Your task to perform on an android device: make emails show in primary in the gmail app Image 0: 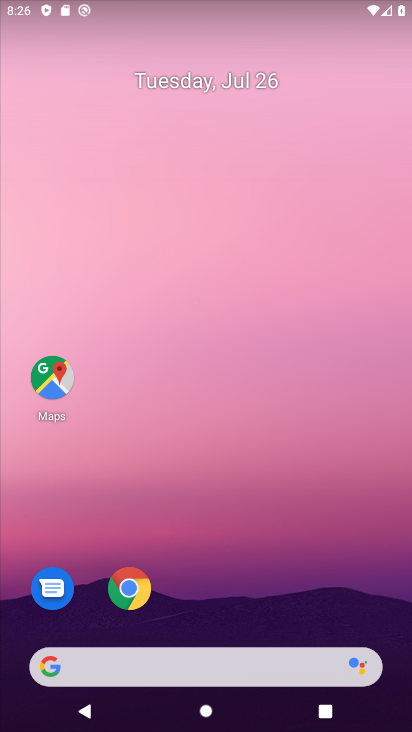
Step 0: press back button
Your task to perform on an android device: make emails show in primary in the gmail app Image 1: 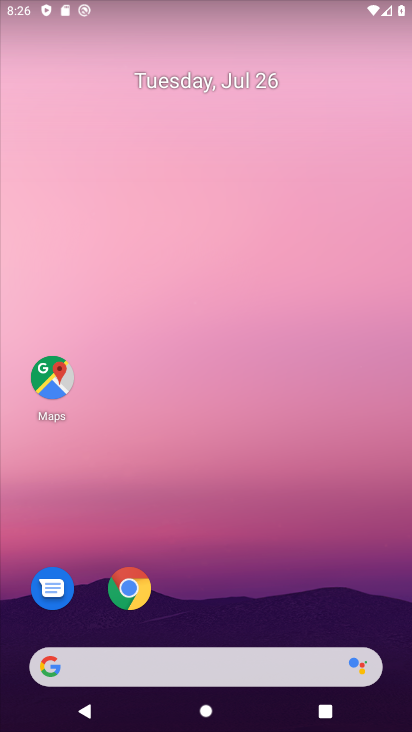
Step 1: drag from (303, 631) to (238, 75)
Your task to perform on an android device: make emails show in primary in the gmail app Image 2: 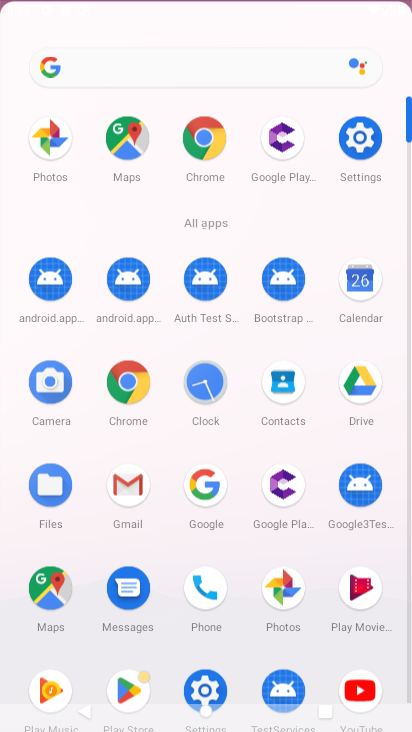
Step 2: drag from (245, 490) to (206, 61)
Your task to perform on an android device: make emails show in primary in the gmail app Image 3: 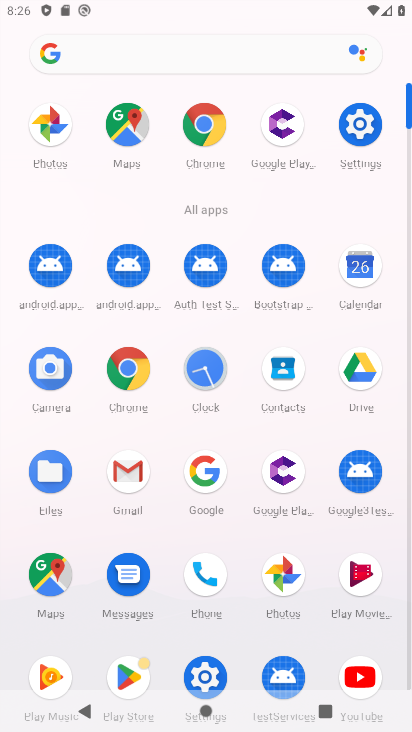
Step 3: click (118, 469)
Your task to perform on an android device: make emails show in primary in the gmail app Image 4: 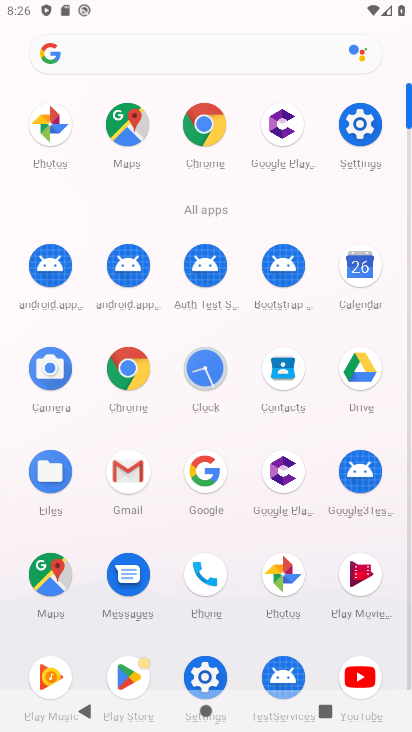
Step 4: click (117, 471)
Your task to perform on an android device: make emails show in primary in the gmail app Image 5: 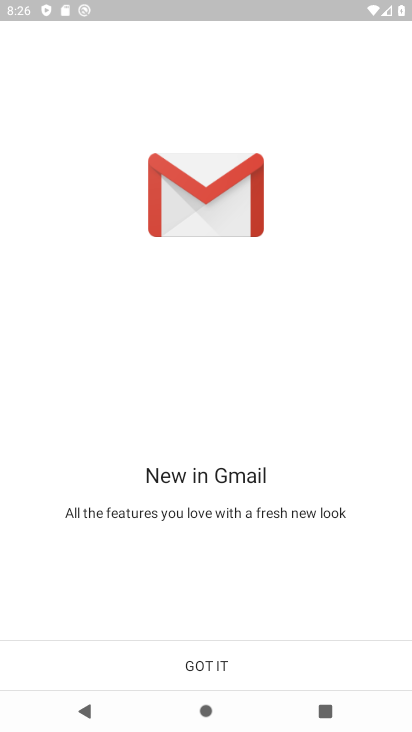
Step 5: click (210, 659)
Your task to perform on an android device: make emails show in primary in the gmail app Image 6: 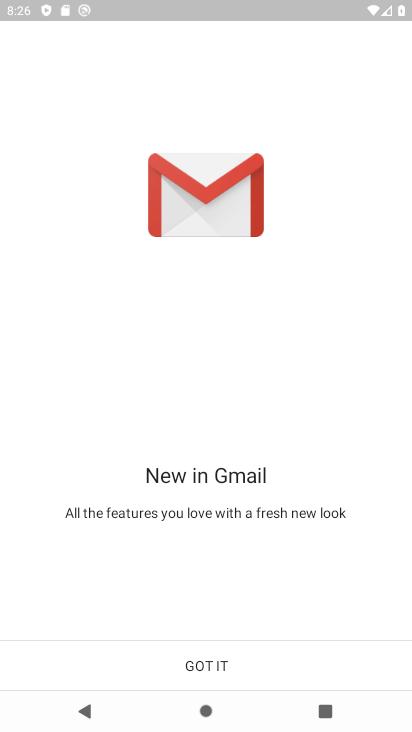
Step 6: click (210, 658)
Your task to perform on an android device: make emails show in primary in the gmail app Image 7: 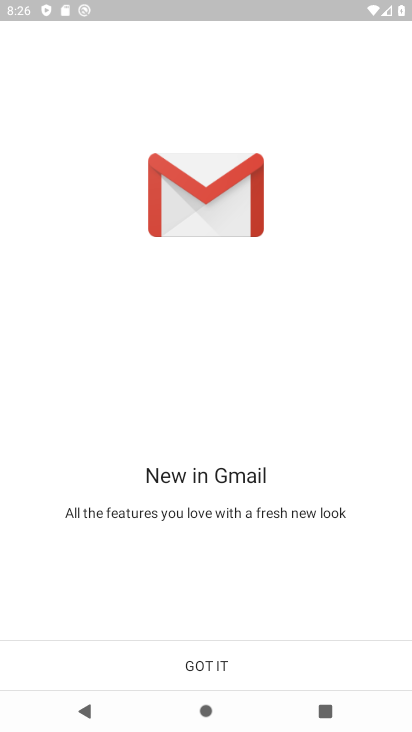
Step 7: click (214, 660)
Your task to perform on an android device: make emails show in primary in the gmail app Image 8: 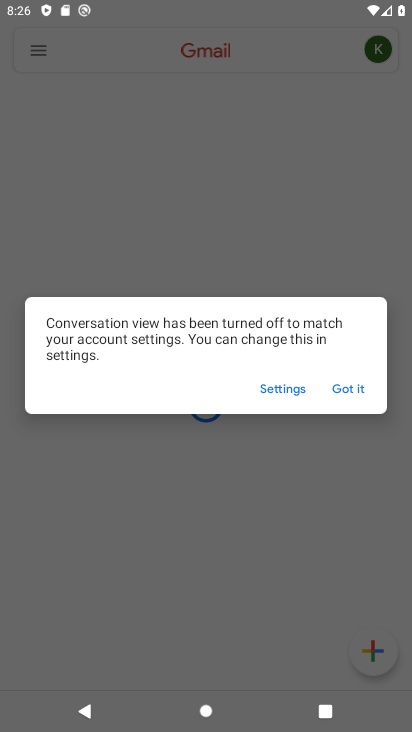
Step 8: click (345, 387)
Your task to perform on an android device: make emails show in primary in the gmail app Image 9: 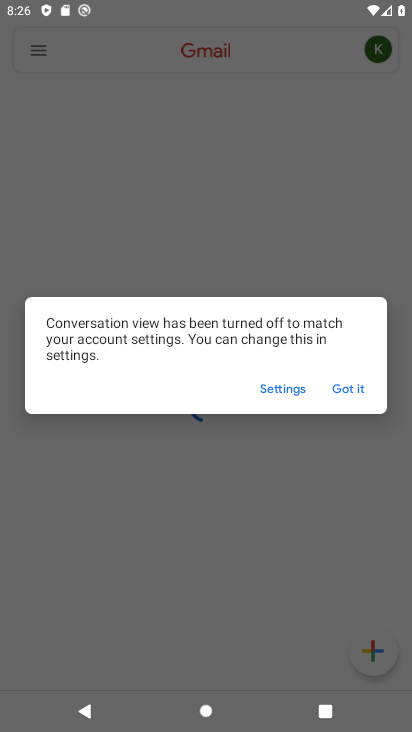
Step 9: click (345, 387)
Your task to perform on an android device: make emails show in primary in the gmail app Image 10: 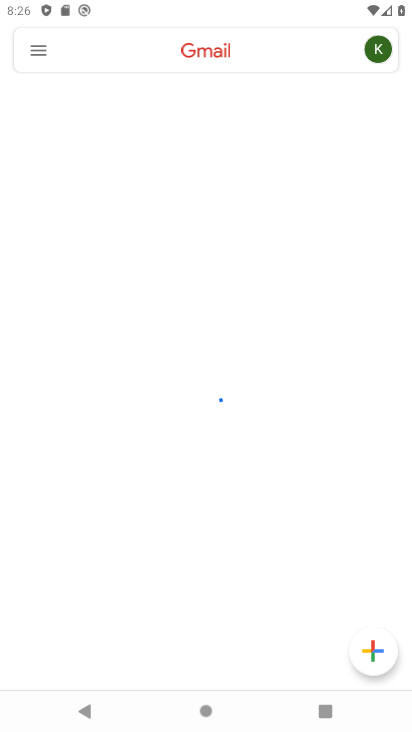
Step 10: click (345, 387)
Your task to perform on an android device: make emails show in primary in the gmail app Image 11: 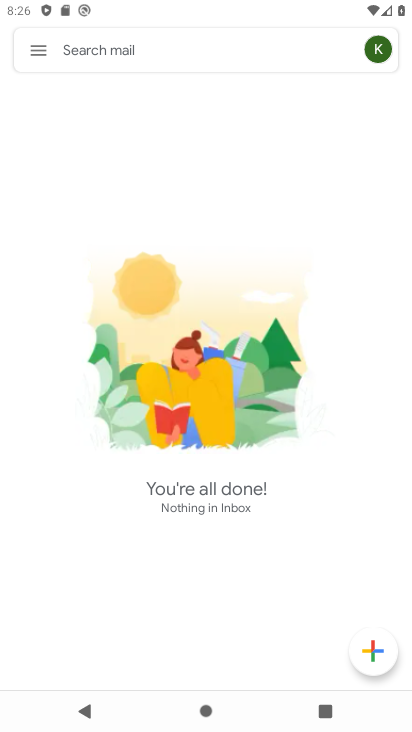
Step 11: click (39, 54)
Your task to perform on an android device: make emails show in primary in the gmail app Image 12: 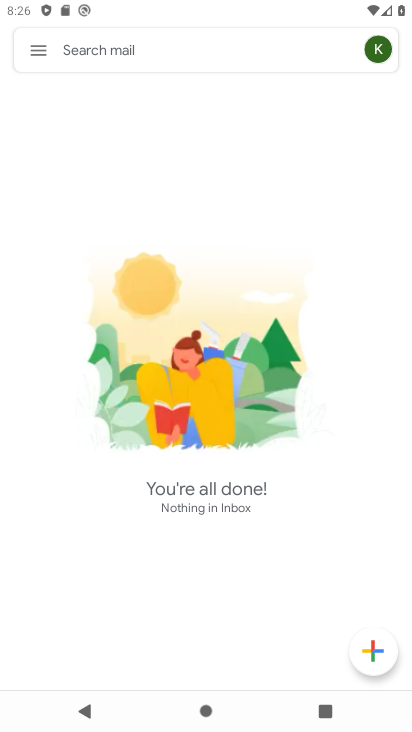
Step 12: click (39, 54)
Your task to perform on an android device: make emails show in primary in the gmail app Image 13: 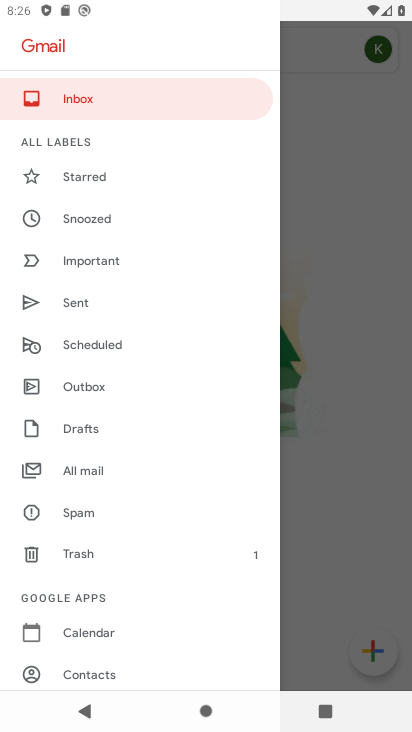
Step 13: drag from (78, 627) to (73, 199)
Your task to perform on an android device: make emails show in primary in the gmail app Image 14: 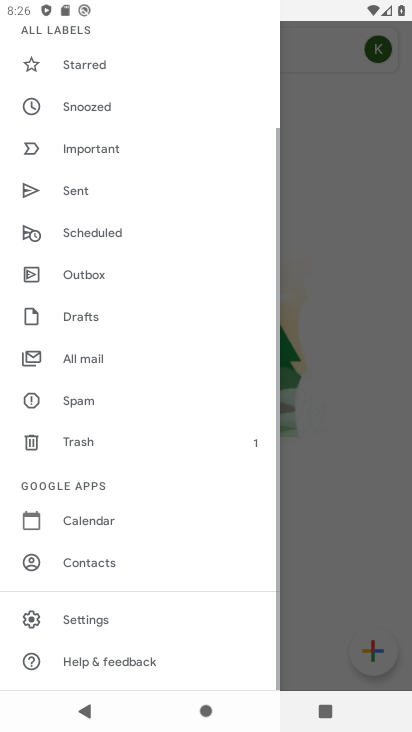
Step 14: drag from (104, 451) to (104, 183)
Your task to perform on an android device: make emails show in primary in the gmail app Image 15: 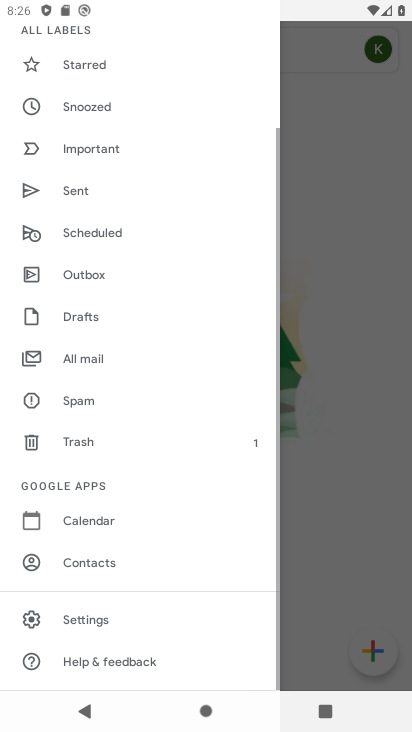
Step 15: click (82, 420)
Your task to perform on an android device: make emails show in primary in the gmail app Image 16: 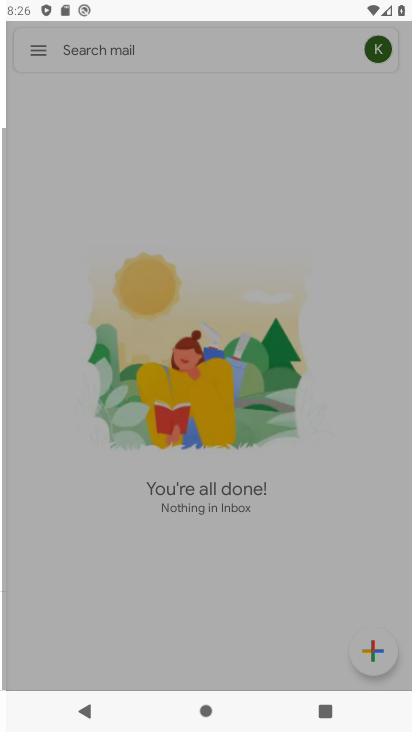
Step 16: click (70, 618)
Your task to perform on an android device: make emails show in primary in the gmail app Image 17: 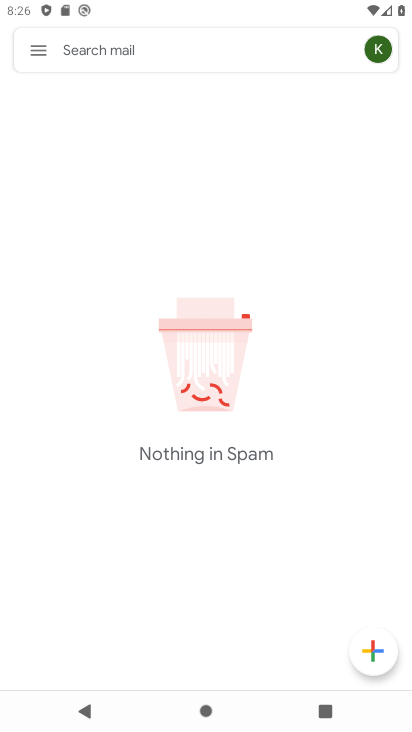
Step 17: click (28, 50)
Your task to perform on an android device: make emails show in primary in the gmail app Image 18: 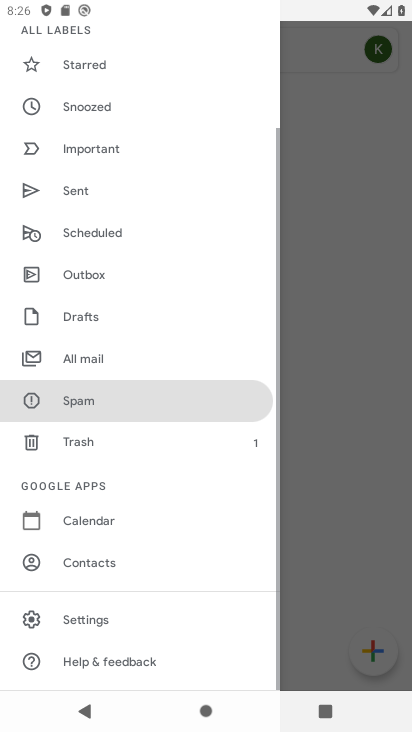
Step 18: click (83, 627)
Your task to perform on an android device: make emails show in primary in the gmail app Image 19: 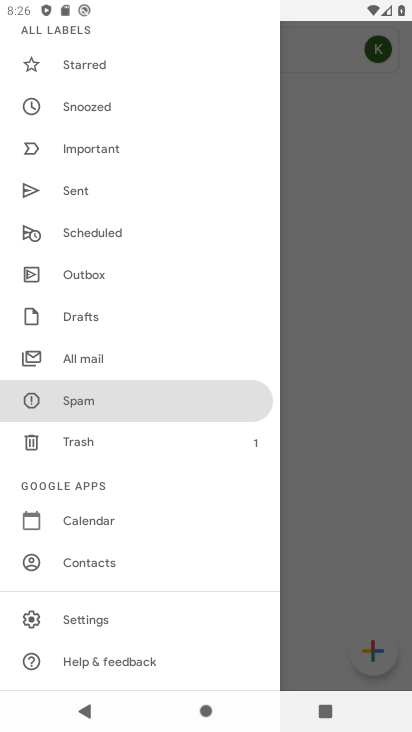
Step 19: click (94, 618)
Your task to perform on an android device: make emails show in primary in the gmail app Image 20: 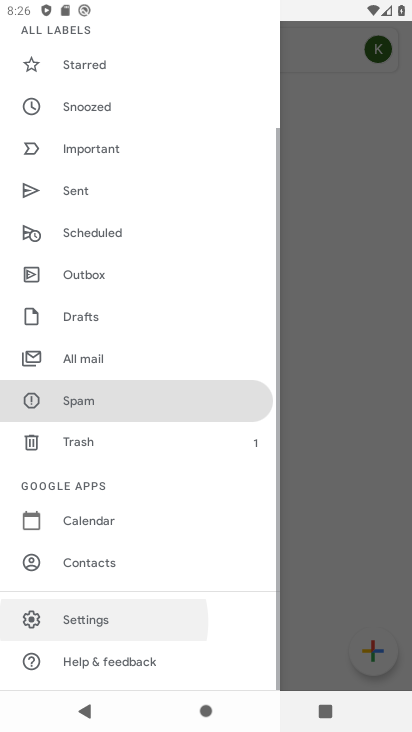
Step 20: click (94, 618)
Your task to perform on an android device: make emails show in primary in the gmail app Image 21: 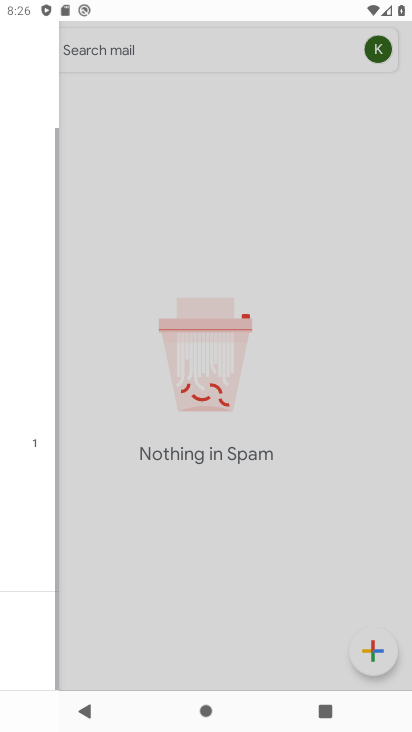
Step 21: click (91, 615)
Your task to perform on an android device: make emails show in primary in the gmail app Image 22: 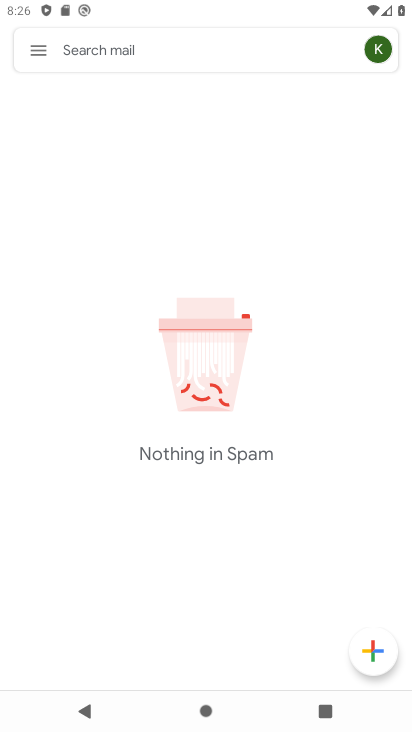
Step 22: click (90, 614)
Your task to perform on an android device: make emails show in primary in the gmail app Image 23: 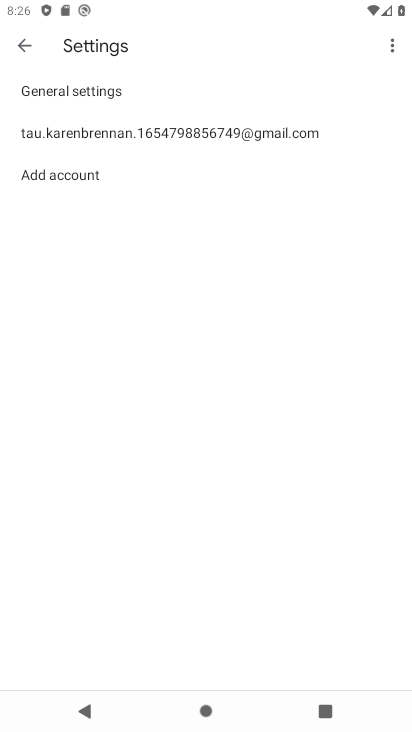
Step 23: click (75, 132)
Your task to perform on an android device: make emails show in primary in the gmail app Image 24: 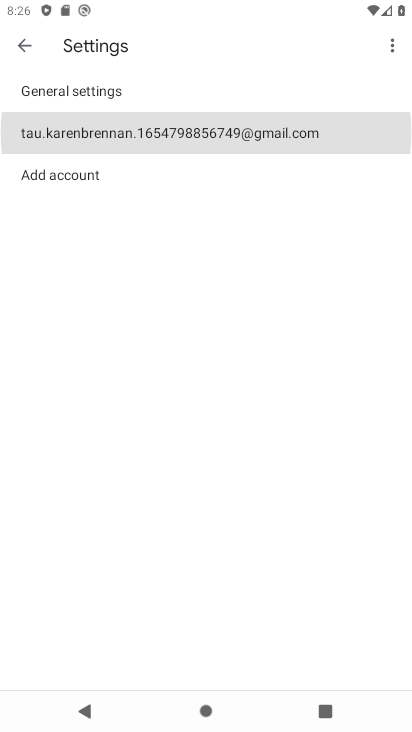
Step 24: click (75, 132)
Your task to perform on an android device: make emails show in primary in the gmail app Image 25: 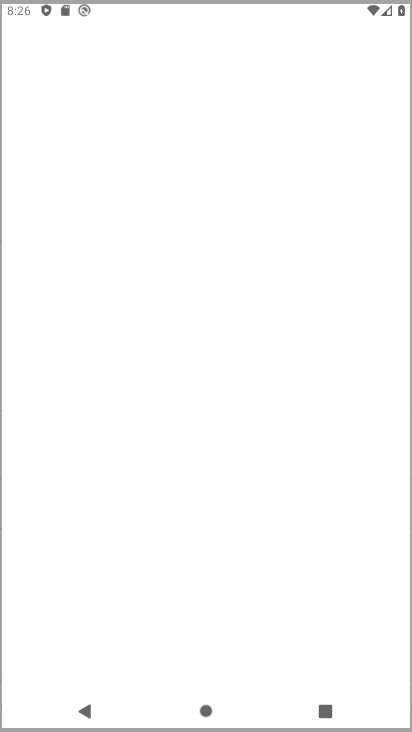
Step 25: drag from (83, 597) to (99, 218)
Your task to perform on an android device: make emails show in primary in the gmail app Image 26: 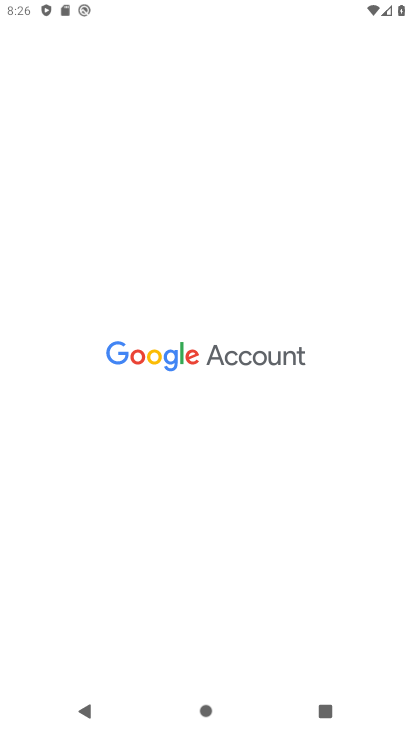
Step 26: drag from (95, 530) to (65, 269)
Your task to perform on an android device: make emails show in primary in the gmail app Image 27: 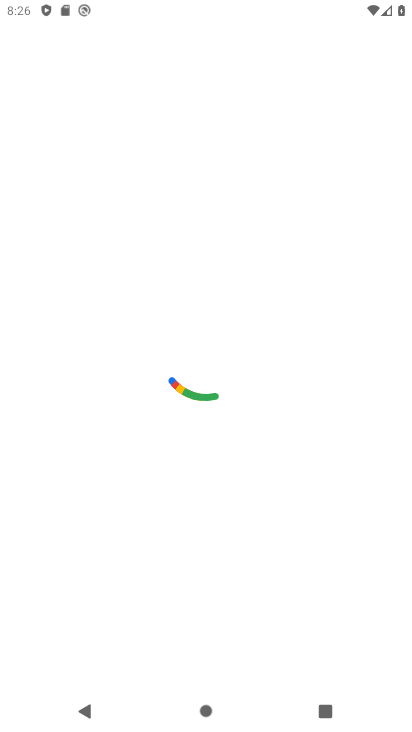
Step 27: press back button
Your task to perform on an android device: make emails show in primary in the gmail app Image 28: 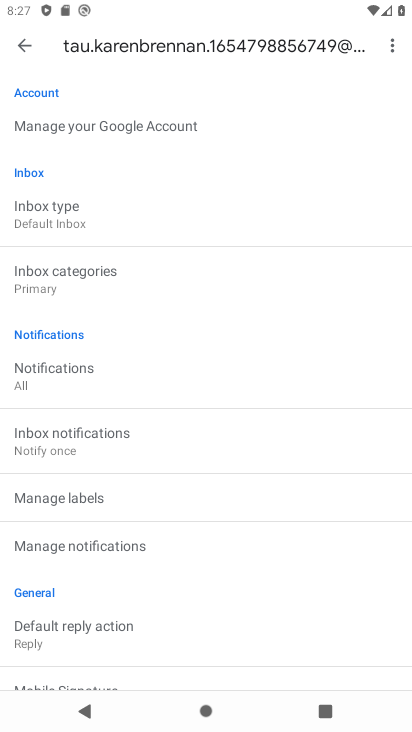
Step 28: click (31, 269)
Your task to perform on an android device: make emails show in primary in the gmail app Image 29: 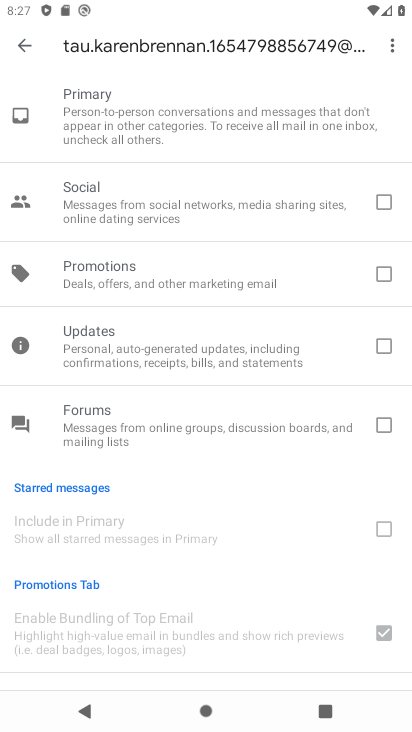
Step 29: task complete